Your task to perform on an android device: Open the stopwatch Image 0: 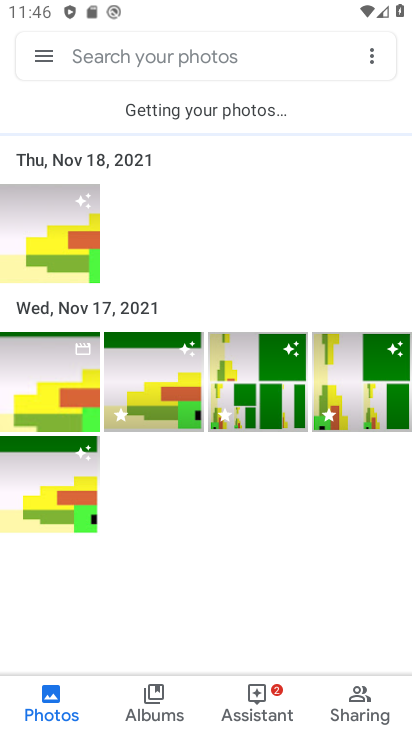
Step 0: press home button
Your task to perform on an android device: Open the stopwatch Image 1: 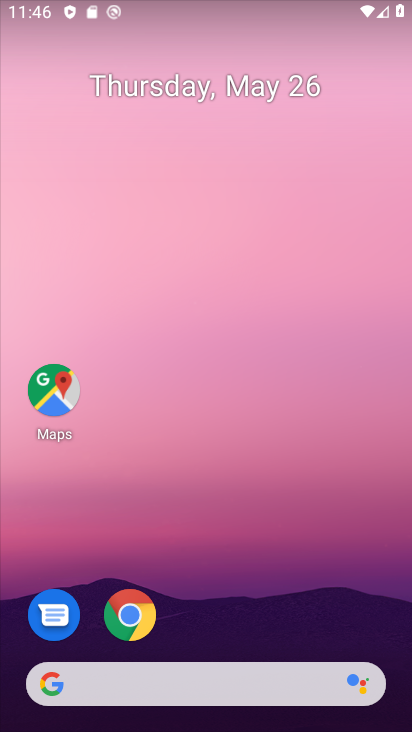
Step 1: drag from (231, 644) to (278, 78)
Your task to perform on an android device: Open the stopwatch Image 2: 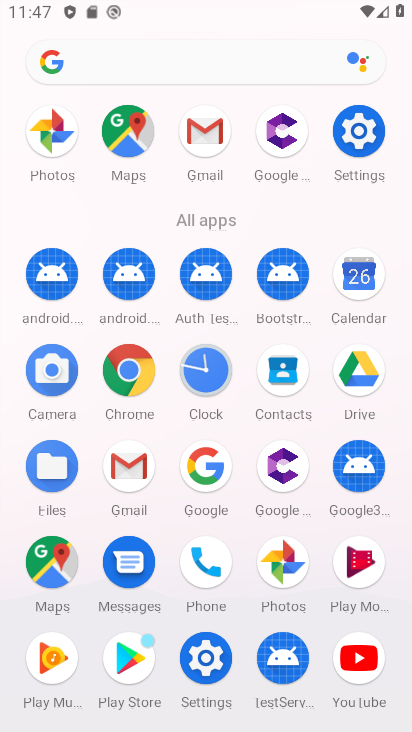
Step 2: click (206, 383)
Your task to perform on an android device: Open the stopwatch Image 3: 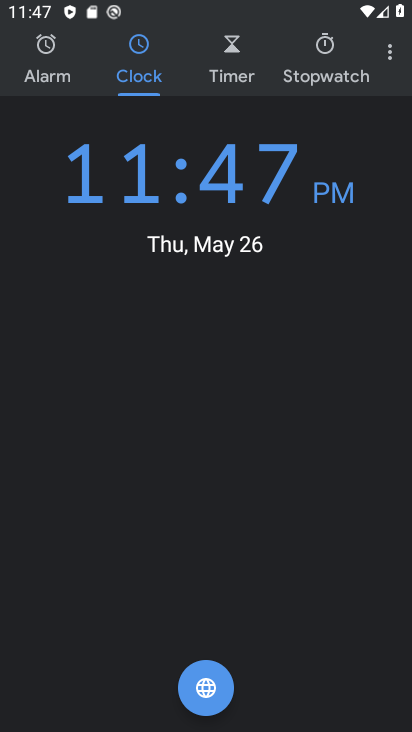
Step 3: click (332, 74)
Your task to perform on an android device: Open the stopwatch Image 4: 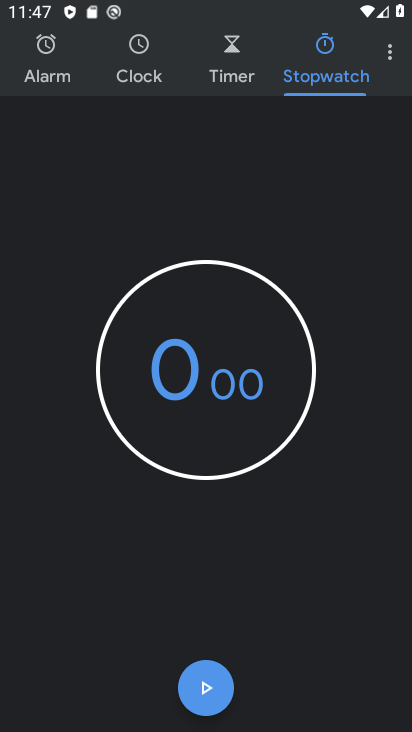
Step 4: task complete